Your task to perform on an android device: turn on the 12-hour format for clock Image 0: 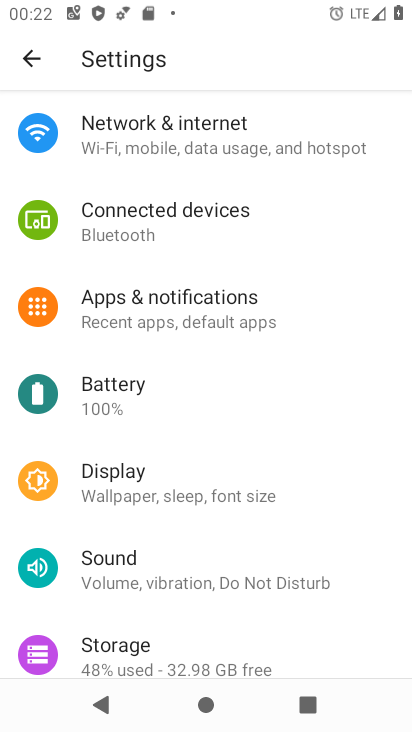
Step 0: press home button
Your task to perform on an android device: turn on the 12-hour format for clock Image 1: 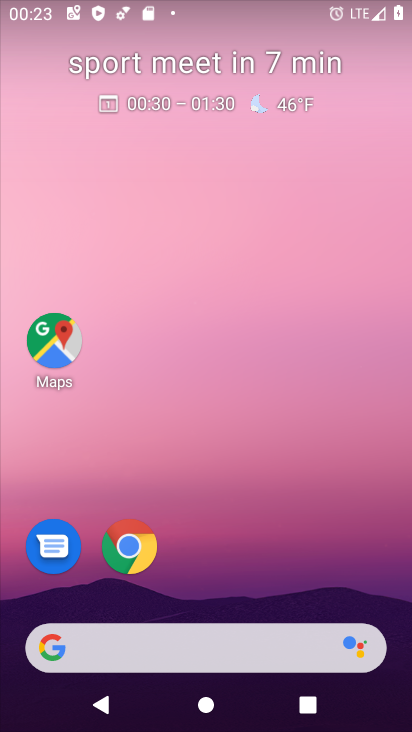
Step 1: drag from (361, 602) to (335, 8)
Your task to perform on an android device: turn on the 12-hour format for clock Image 2: 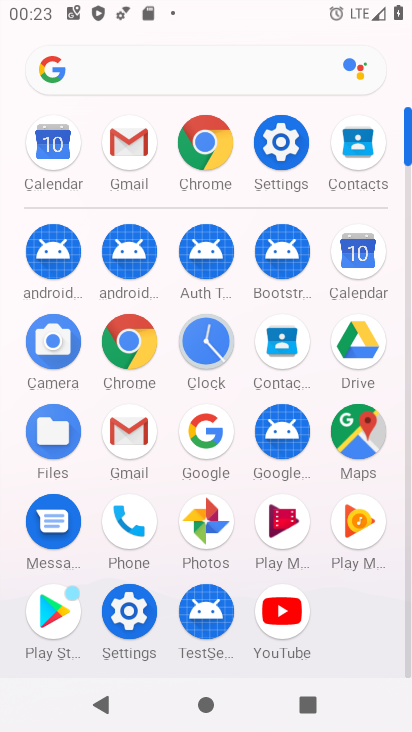
Step 2: click (207, 337)
Your task to perform on an android device: turn on the 12-hour format for clock Image 3: 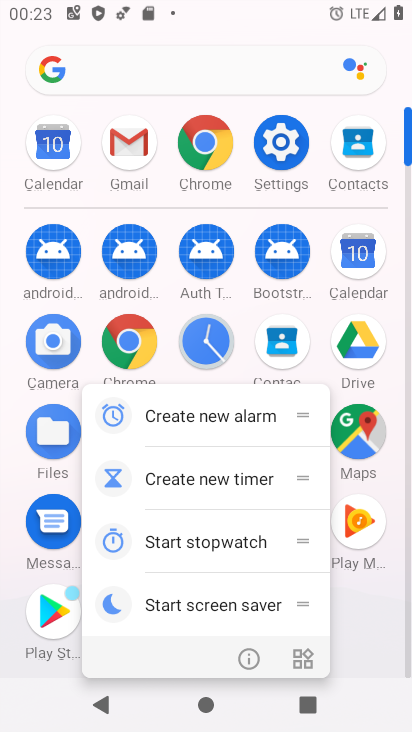
Step 3: click (207, 337)
Your task to perform on an android device: turn on the 12-hour format for clock Image 4: 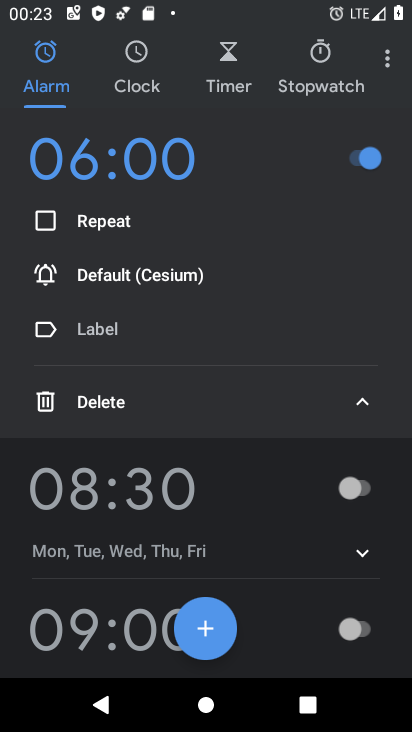
Step 4: click (386, 63)
Your task to perform on an android device: turn on the 12-hour format for clock Image 5: 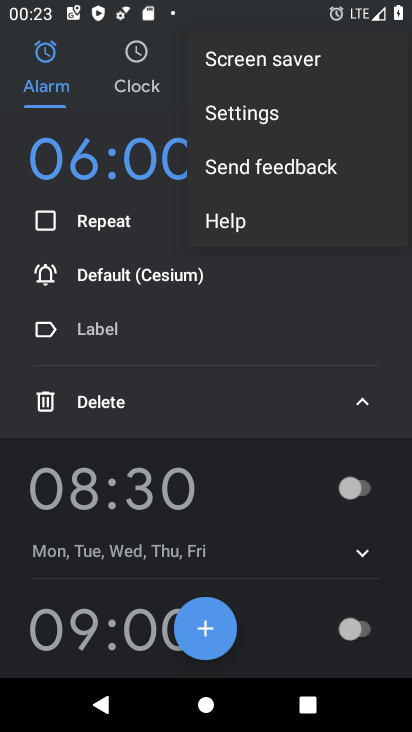
Step 5: click (243, 120)
Your task to perform on an android device: turn on the 12-hour format for clock Image 6: 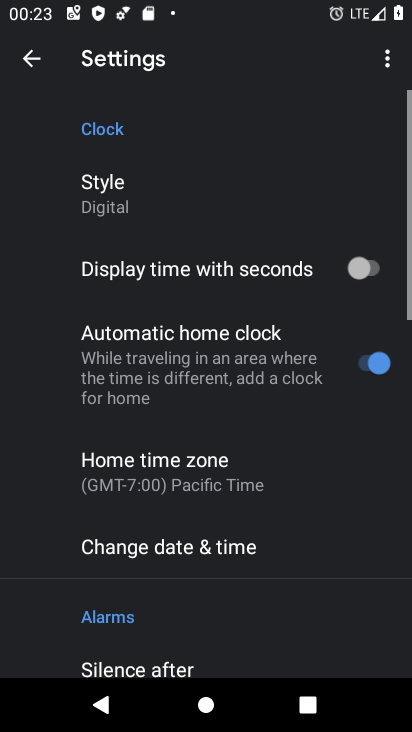
Step 6: drag from (255, 544) to (262, 308)
Your task to perform on an android device: turn on the 12-hour format for clock Image 7: 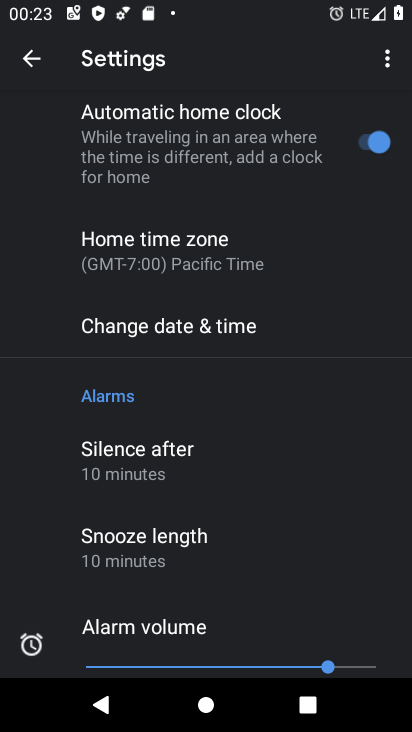
Step 7: click (175, 333)
Your task to perform on an android device: turn on the 12-hour format for clock Image 8: 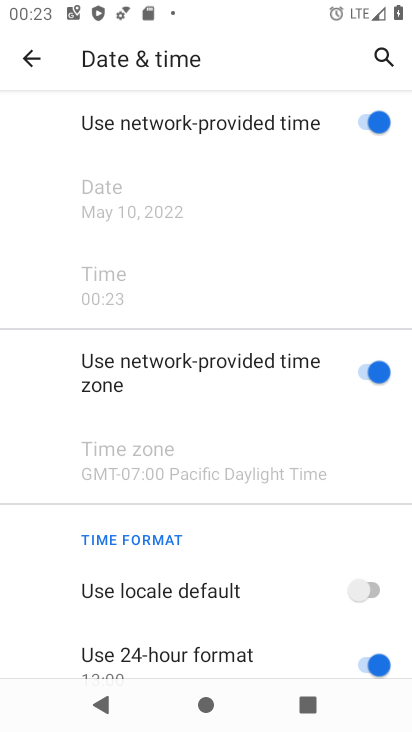
Step 8: drag from (214, 533) to (214, 335)
Your task to perform on an android device: turn on the 12-hour format for clock Image 9: 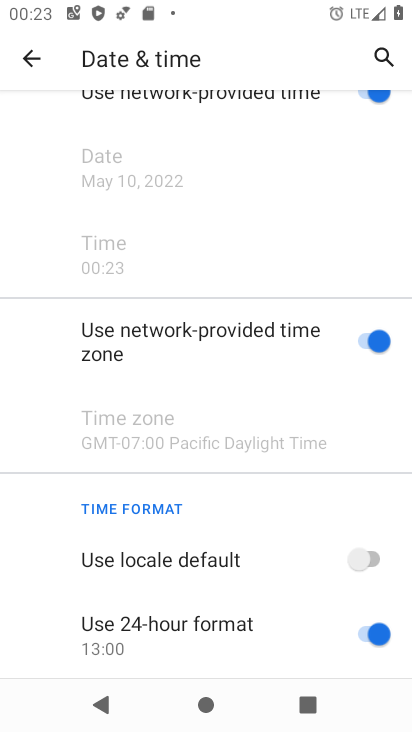
Step 9: click (377, 631)
Your task to perform on an android device: turn on the 12-hour format for clock Image 10: 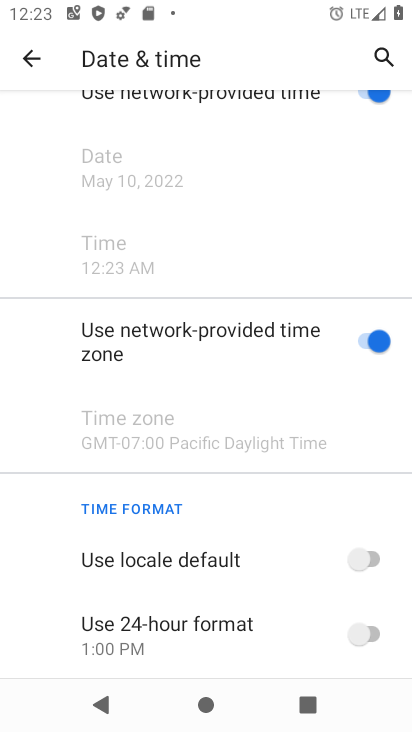
Step 10: click (364, 556)
Your task to perform on an android device: turn on the 12-hour format for clock Image 11: 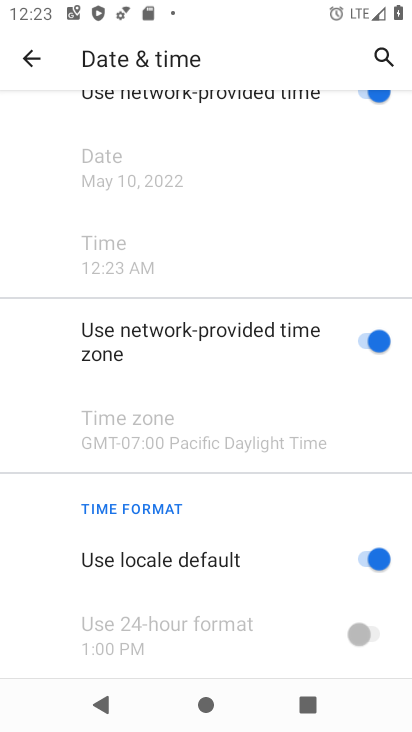
Step 11: task complete